Your task to perform on an android device: Is it going to rain tomorrow? Image 0: 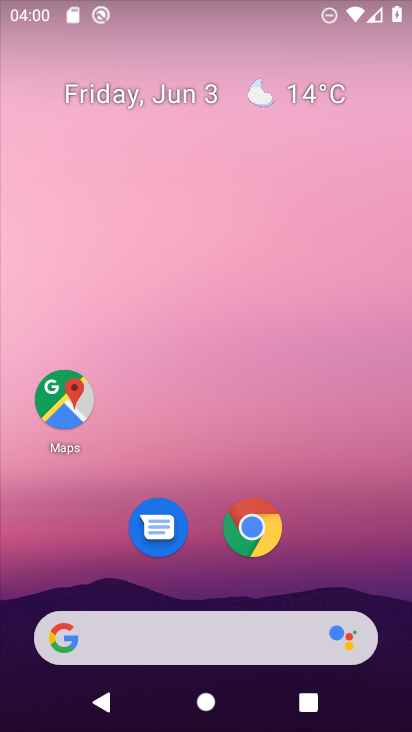
Step 0: drag from (344, 572) to (251, 38)
Your task to perform on an android device: Is it going to rain tomorrow? Image 1: 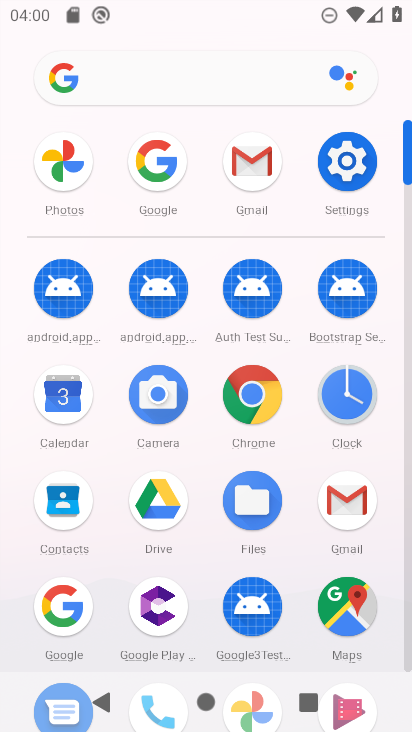
Step 1: click (151, 158)
Your task to perform on an android device: Is it going to rain tomorrow? Image 2: 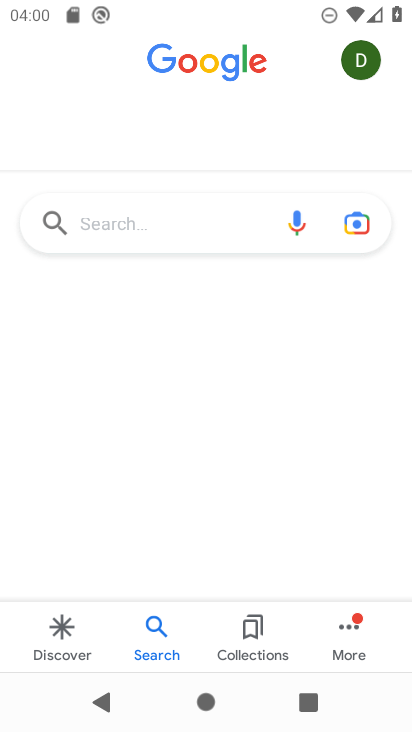
Step 2: click (157, 213)
Your task to perform on an android device: Is it going to rain tomorrow? Image 3: 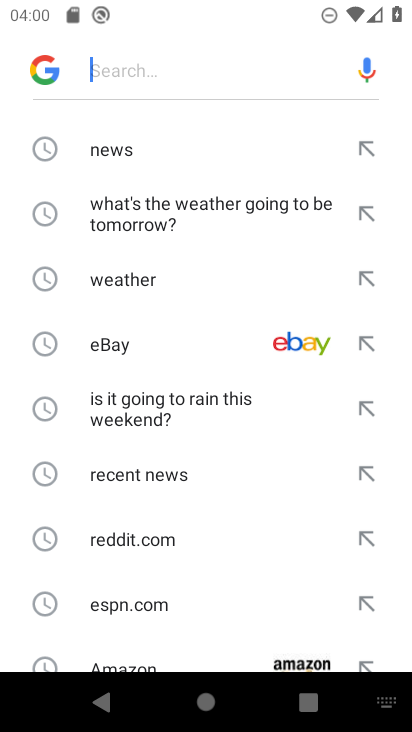
Step 3: type "Is it going to rain tomorrow?"
Your task to perform on an android device: Is it going to rain tomorrow? Image 4: 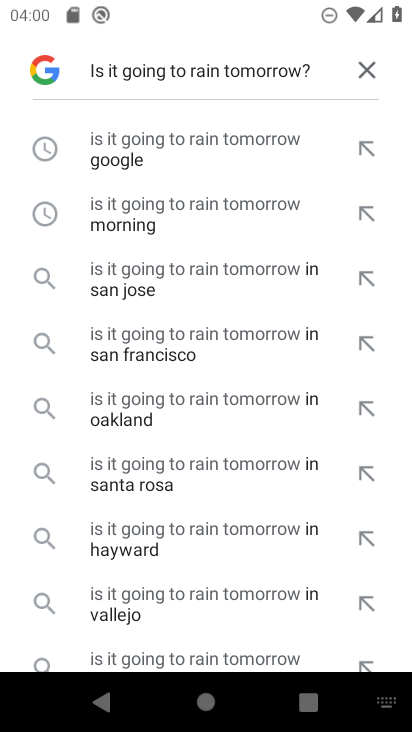
Step 4: click (135, 153)
Your task to perform on an android device: Is it going to rain tomorrow? Image 5: 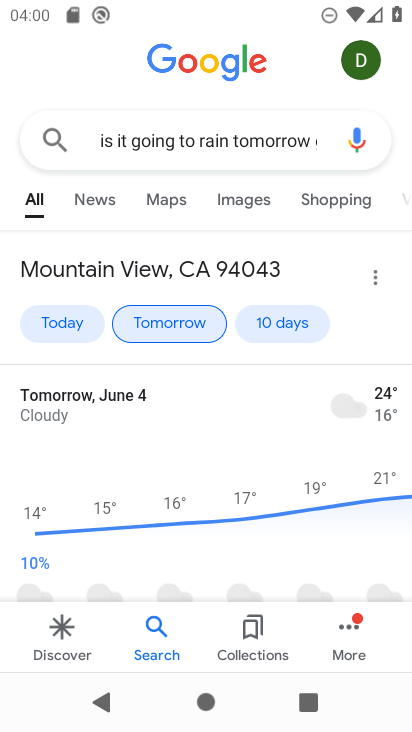
Step 5: task complete